Your task to perform on an android device: When is my next meeting? Image 0: 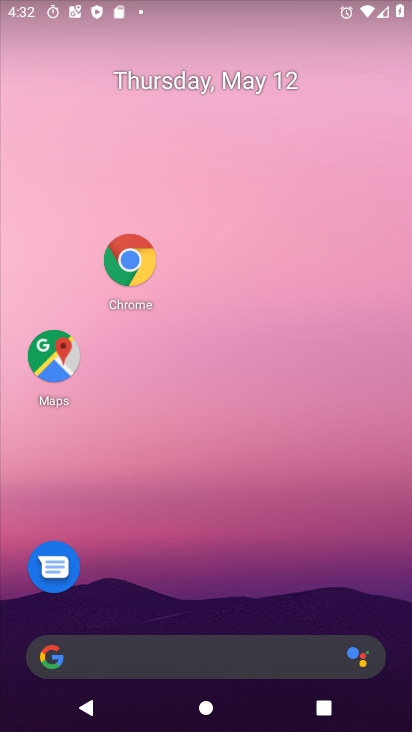
Step 0: press home button
Your task to perform on an android device: When is my next meeting? Image 1: 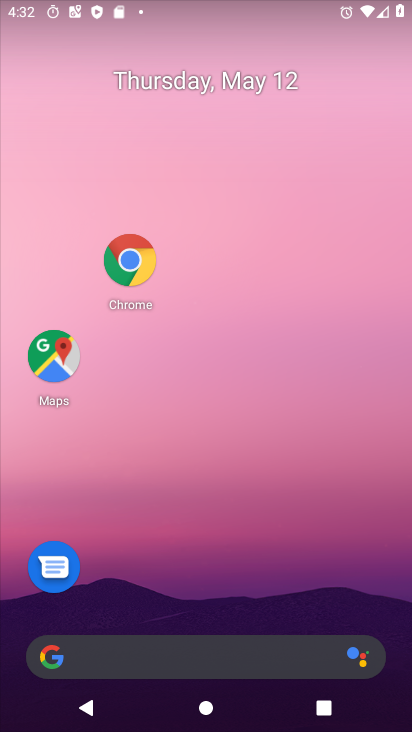
Step 1: drag from (204, 507) to (220, 239)
Your task to perform on an android device: When is my next meeting? Image 2: 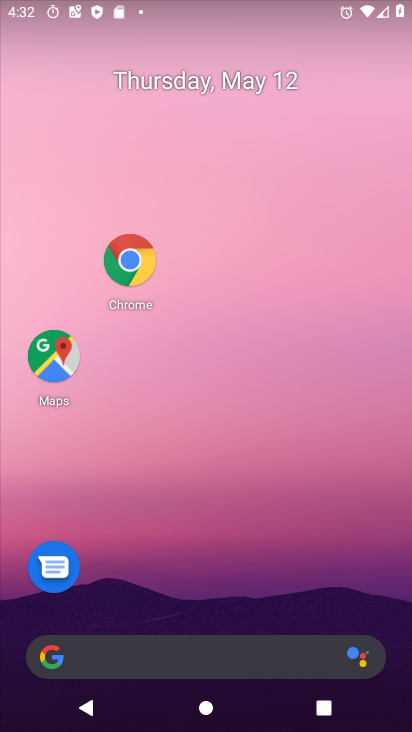
Step 2: drag from (218, 637) to (269, 157)
Your task to perform on an android device: When is my next meeting? Image 3: 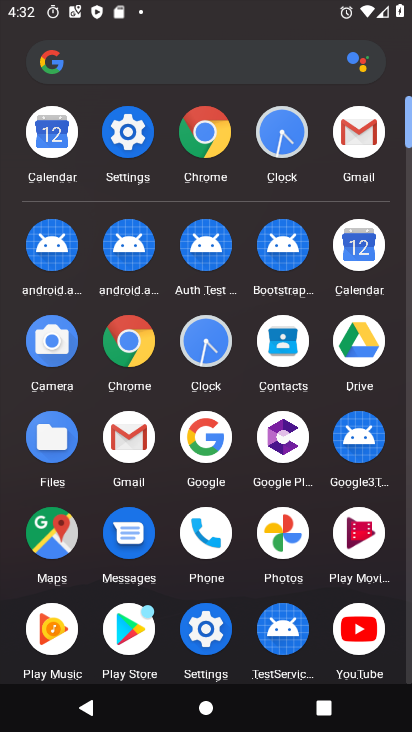
Step 3: click (363, 250)
Your task to perform on an android device: When is my next meeting? Image 4: 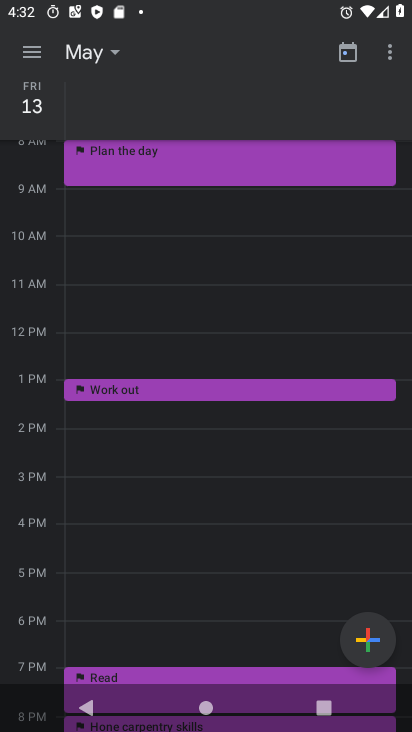
Step 4: click (91, 52)
Your task to perform on an android device: When is my next meeting? Image 5: 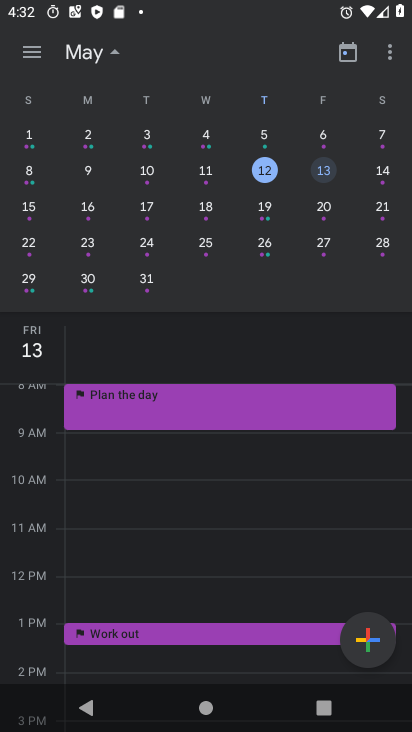
Step 5: click (334, 175)
Your task to perform on an android device: When is my next meeting? Image 6: 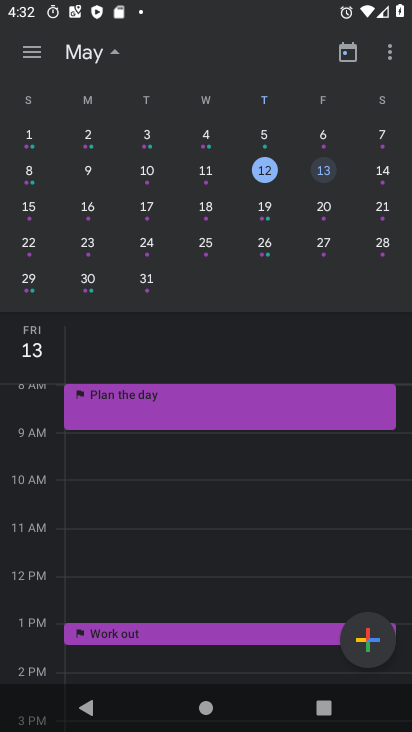
Step 6: click (325, 171)
Your task to perform on an android device: When is my next meeting? Image 7: 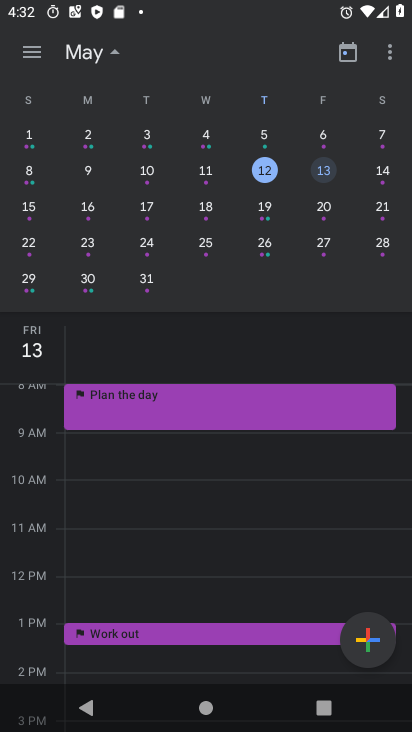
Step 7: click (38, 53)
Your task to perform on an android device: When is my next meeting? Image 8: 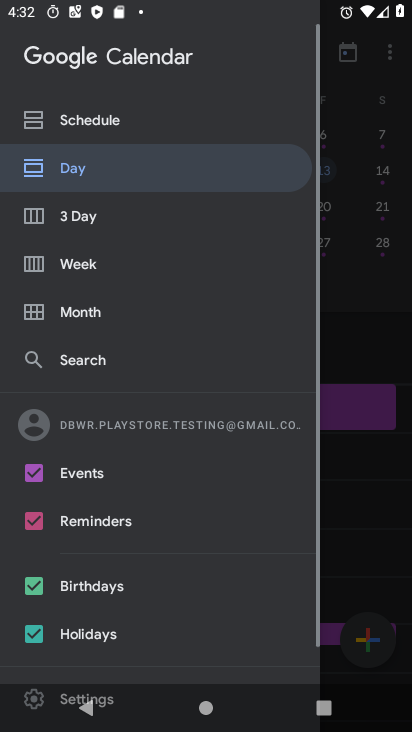
Step 8: click (104, 124)
Your task to perform on an android device: When is my next meeting? Image 9: 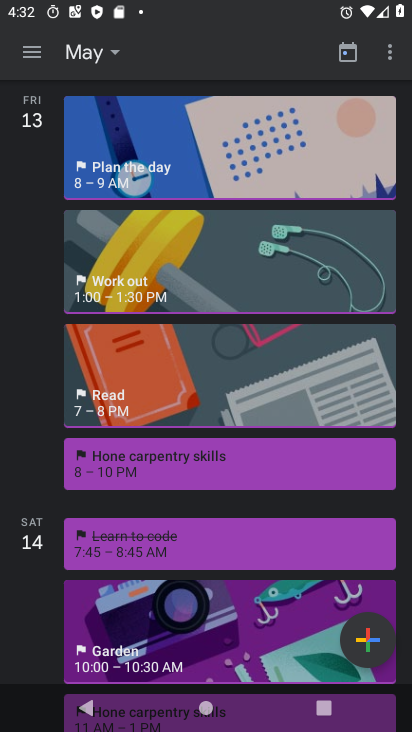
Step 9: drag from (190, 155) to (188, 562)
Your task to perform on an android device: When is my next meeting? Image 10: 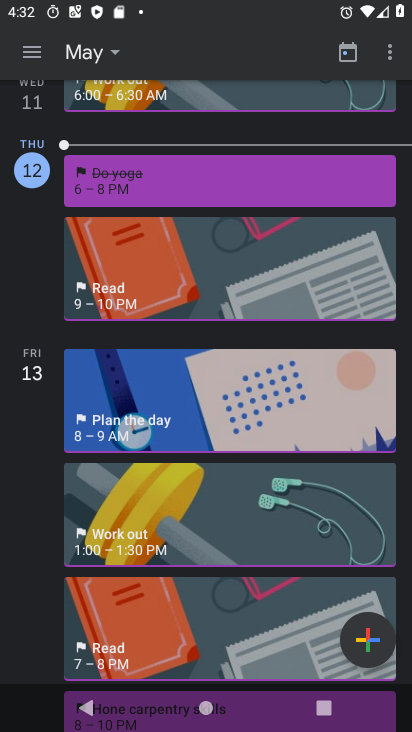
Step 10: click (151, 186)
Your task to perform on an android device: When is my next meeting? Image 11: 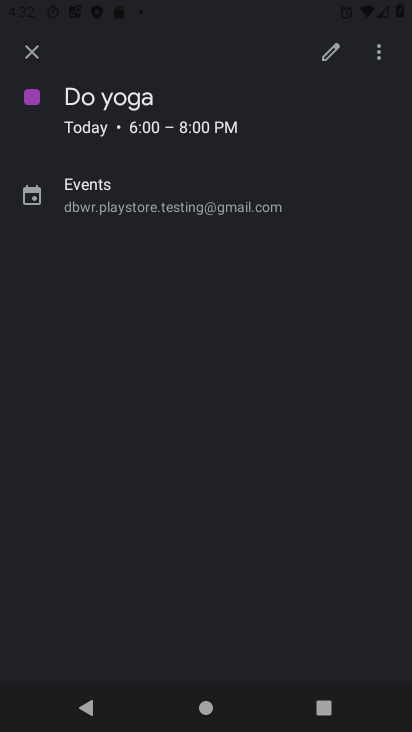
Step 11: task complete